Your task to perform on an android device: remove spam from my inbox in the gmail app Image 0: 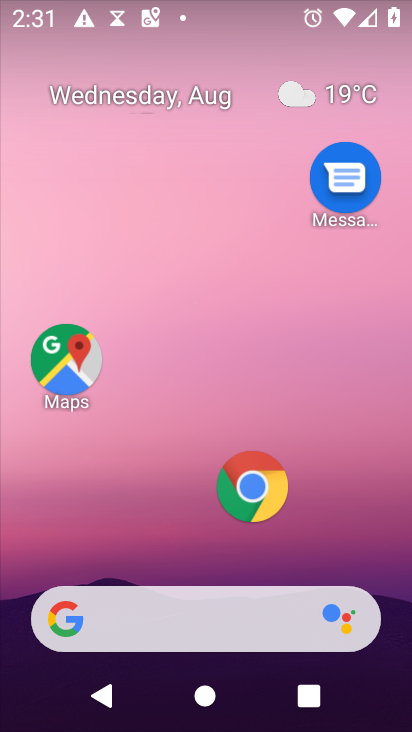
Step 0: drag from (188, 518) to (248, 4)
Your task to perform on an android device: remove spam from my inbox in the gmail app Image 1: 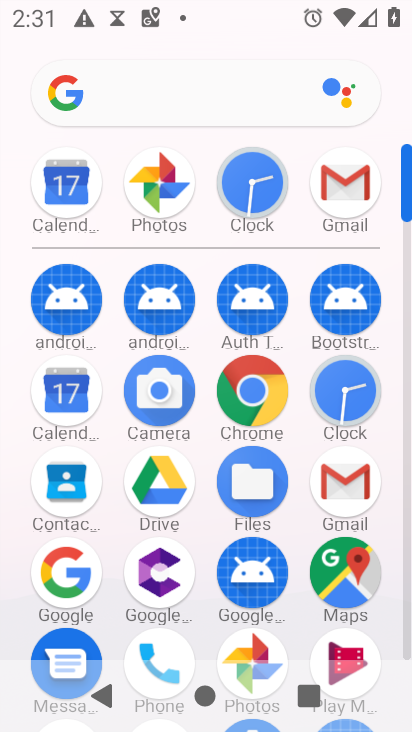
Step 1: click (328, 197)
Your task to perform on an android device: remove spam from my inbox in the gmail app Image 2: 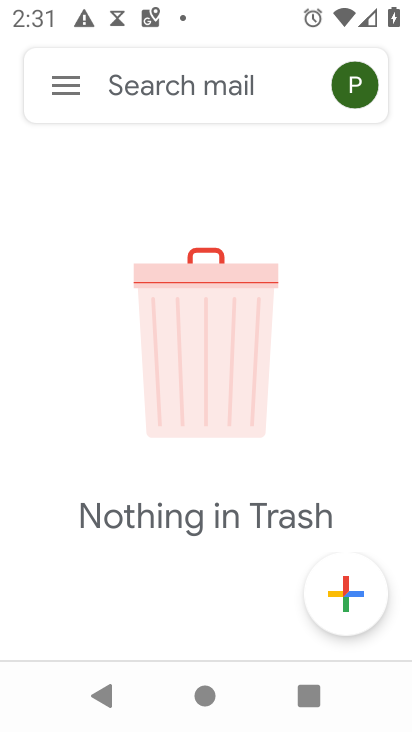
Step 2: click (57, 86)
Your task to perform on an android device: remove spam from my inbox in the gmail app Image 3: 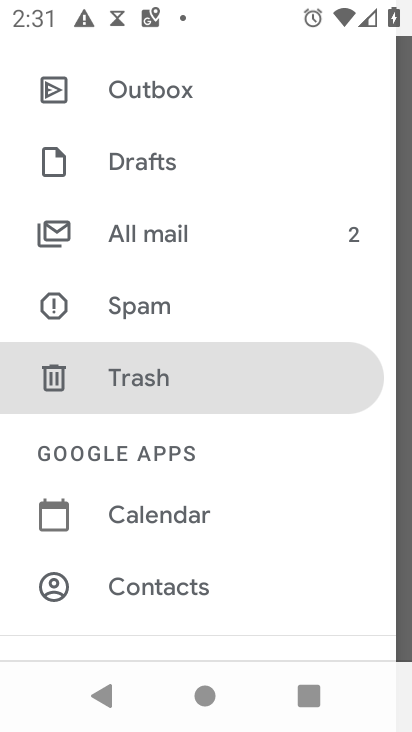
Step 3: click (158, 315)
Your task to perform on an android device: remove spam from my inbox in the gmail app Image 4: 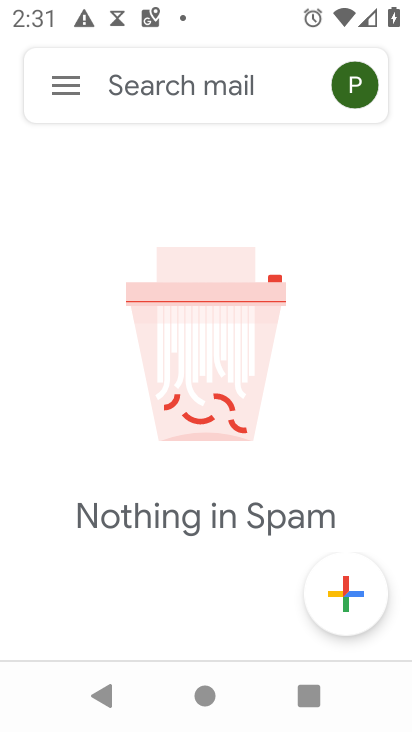
Step 4: task complete